Your task to perform on an android device: Open location settings Image 0: 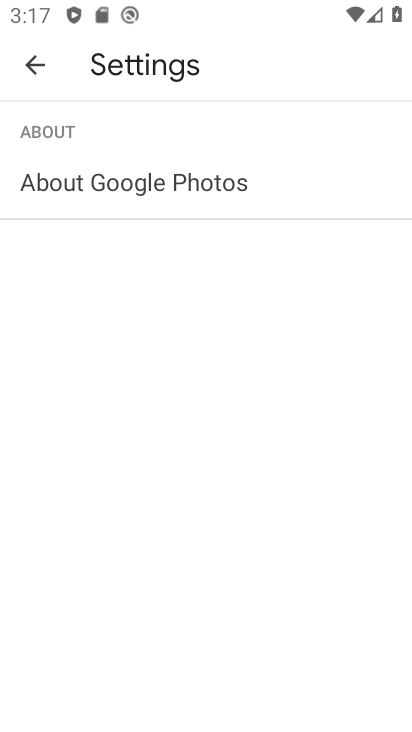
Step 0: press home button
Your task to perform on an android device: Open location settings Image 1: 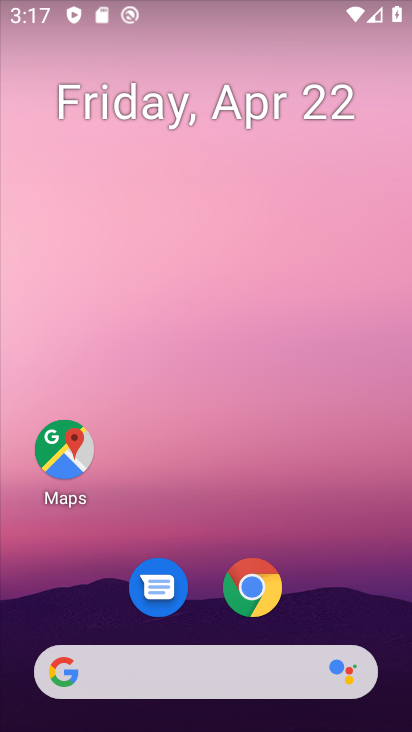
Step 1: drag from (345, 559) to (289, 25)
Your task to perform on an android device: Open location settings Image 2: 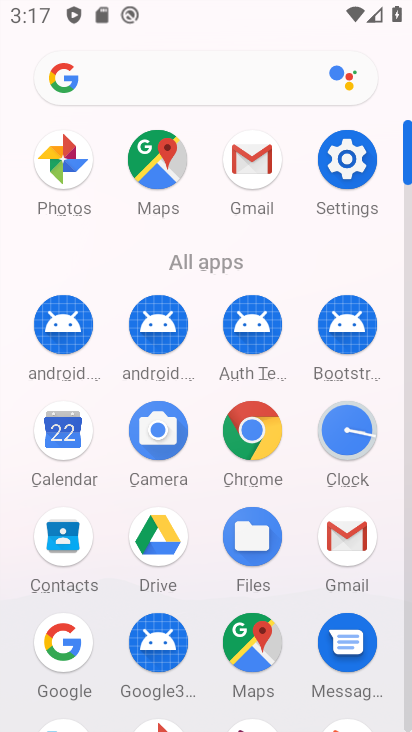
Step 2: click (350, 158)
Your task to perform on an android device: Open location settings Image 3: 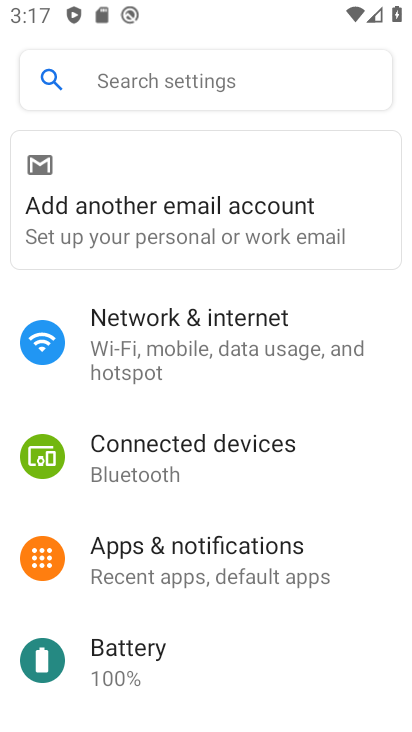
Step 3: drag from (221, 498) to (224, 344)
Your task to perform on an android device: Open location settings Image 4: 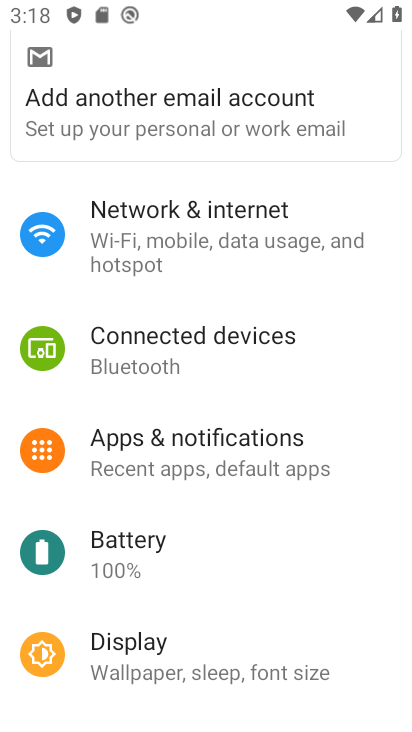
Step 4: drag from (211, 500) to (208, 376)
Your task to perform on an android device: Open location settings Image 5: 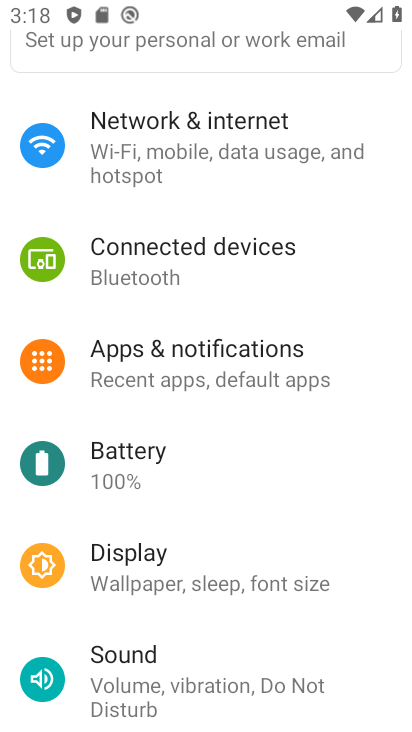
Step 5: drag from (202, 469) to (219, 320)
Your task to perform on an android device: Open location settings Image 6: 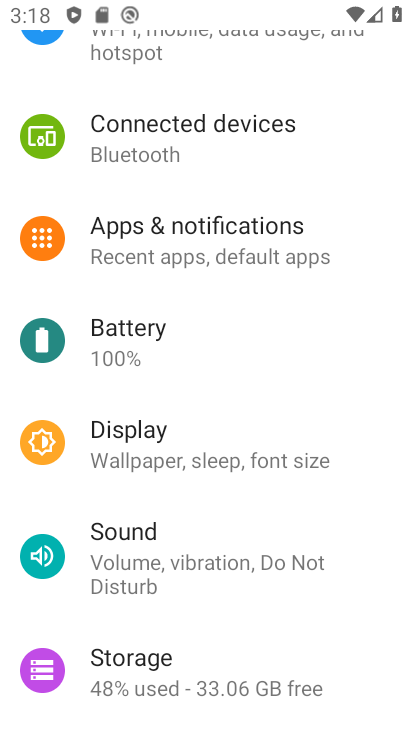
Step 6: drag from (212, 496) to (234, 353)
Your task to perform on an android device: Open location settings Image 7: 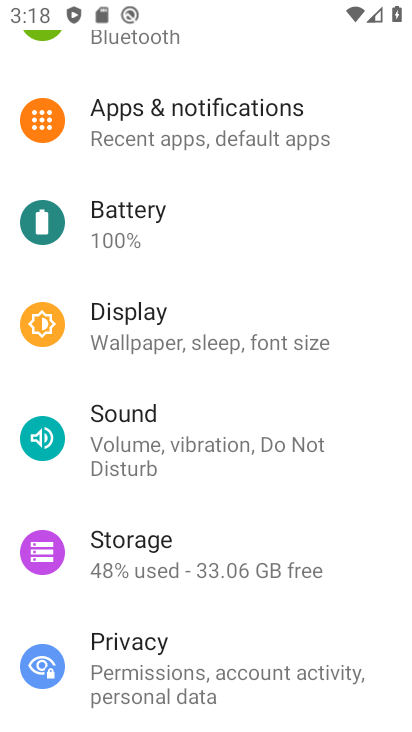
Step 7: drag from (208, 458) to (217, 364)
Your task to perform on an android device: Open location settings Image 8: 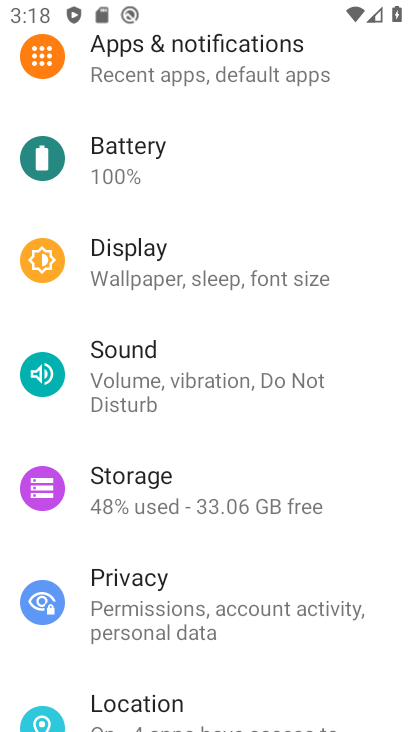
Step 8: drag from (203, 454) to (229, 315)
Your task to perform on an android device: Open location settings Image 9: 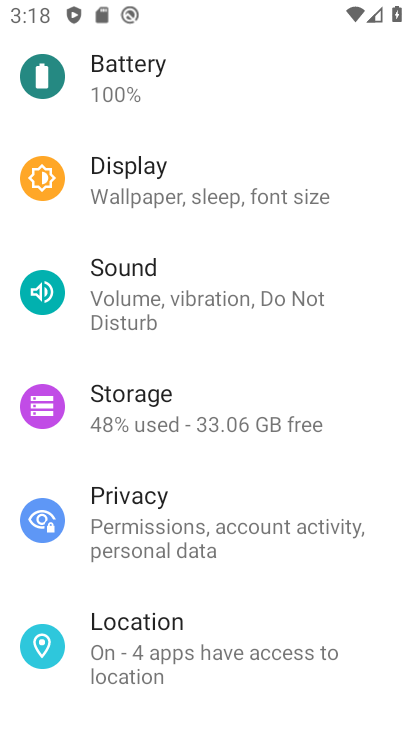
Step 9: drag from (217, 456) to (242, 292)
Your task to perform on an android device: Open location settings Image 10: 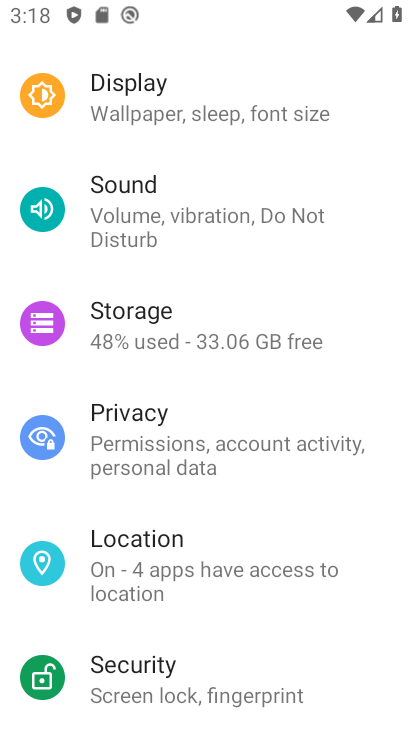
Step 10: drag from (216, 406) to (265, 238)
Your task to perform on an android device: Open location settings Image 11: 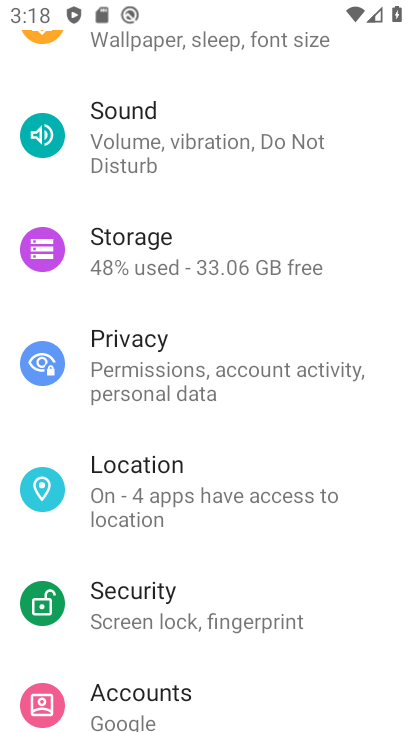
Step 11: click (248, 506)
Your task to perform on an android device: Open location settings Image 12: 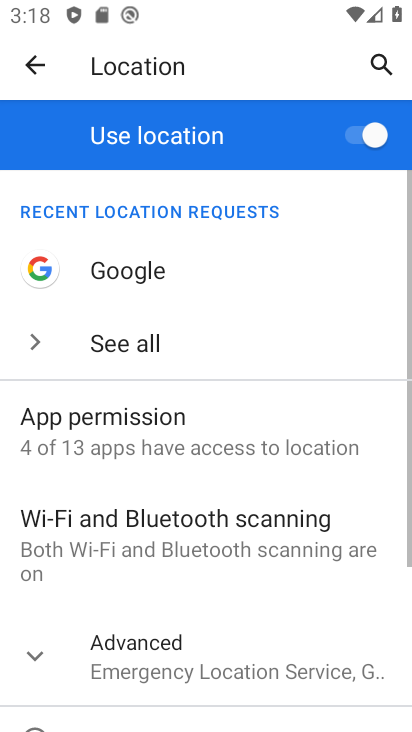
Step 12: task complete